Your task to perform on an android device: delete location history Image 0: 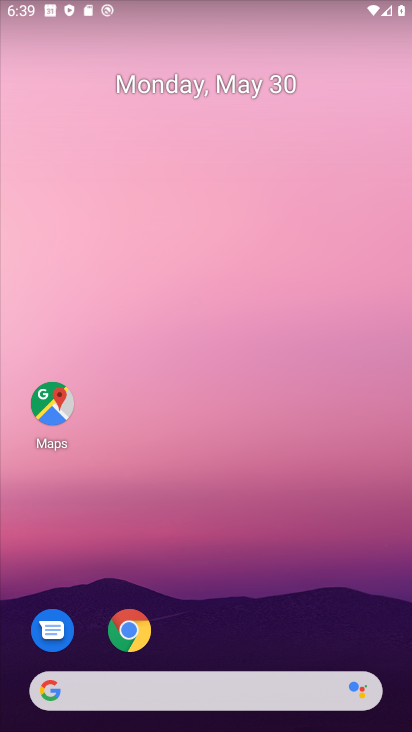
Step 0: drag from (346, 623) to (282, 10)
Your task to perform on an android device: delete location history Image 1: 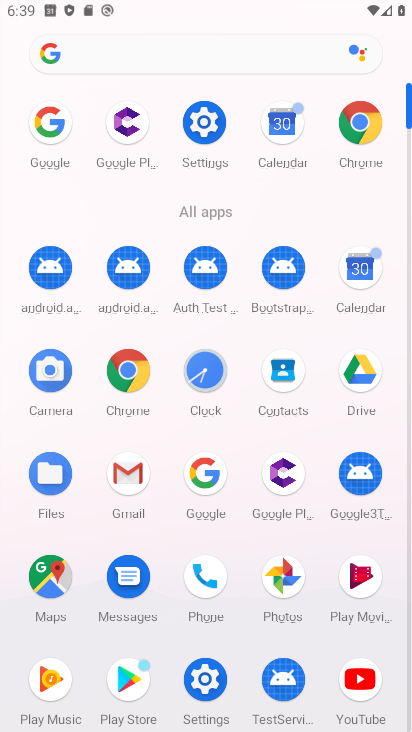
Step 1: click (209, 137)
Your task to perform on an android device: delete location history Image 2: 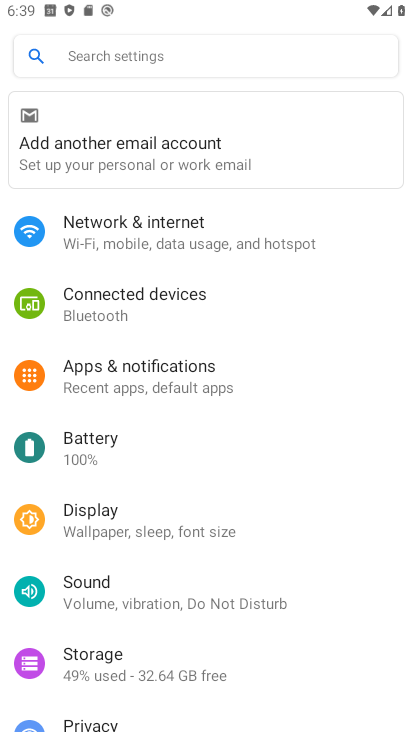
Step 2: drag from (136, 677) to (170, 235)
Your task to perform on an android device: delete location history Image 3: 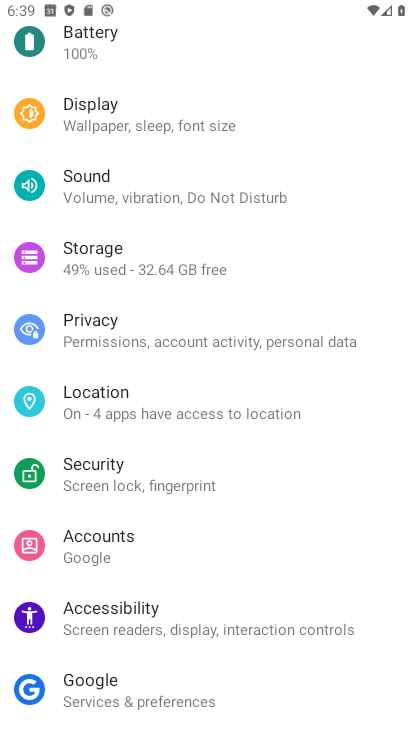
Step 3: click (130, 417)
Your task to perform on an android device: delete location history Image 4: 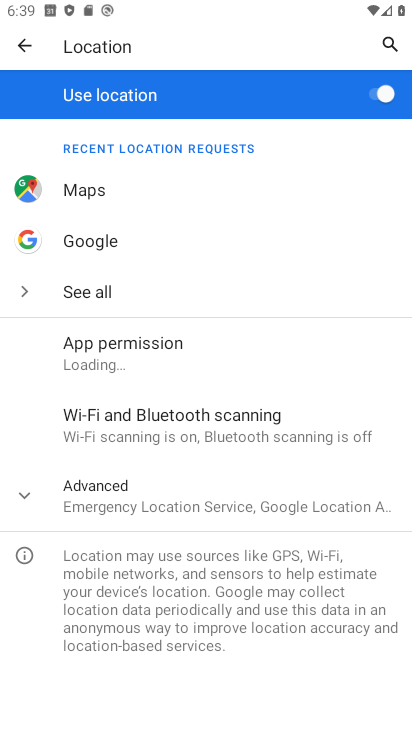
Step 4: click (134, 507)
Your task to perform on an android device: delete location history Image 5: 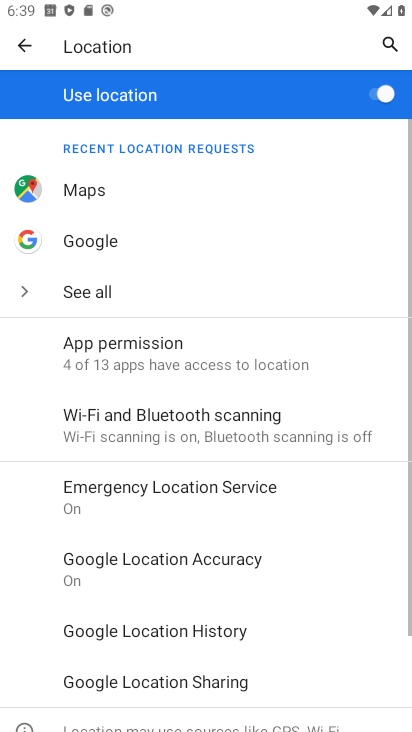
Step 5: click (183, 626)
Your task to perform on an android device: delete location history Image 6: 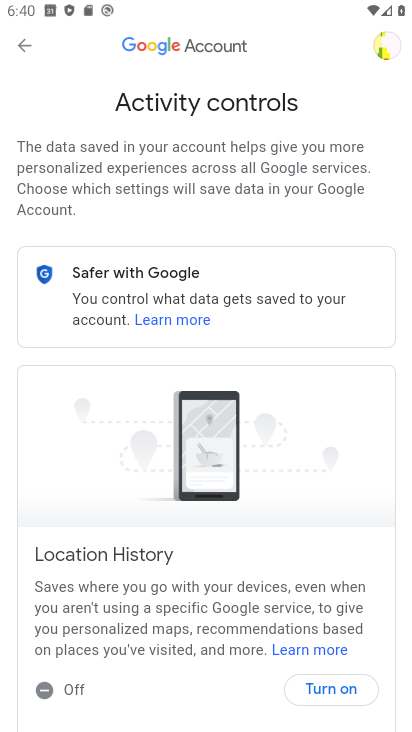
Step 6: drag from (260, 648) to (243, 140)
Your task to perform on an android device: delete location history Image 7: 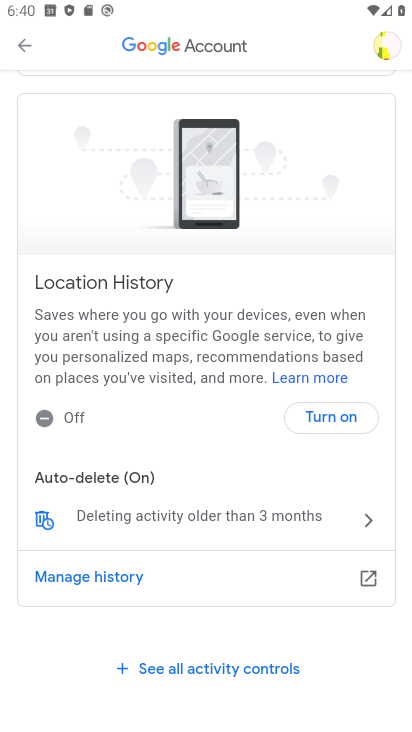
Step 7: click (203, 508)
Your task to perform on an android device: delete location history Image 8: 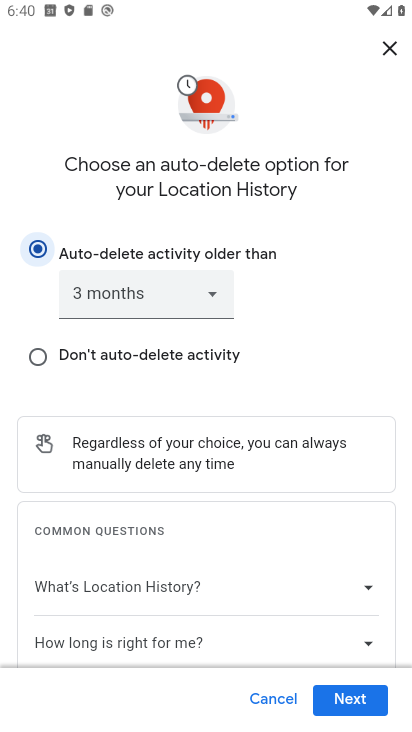
Step 8: click (344, 710)
Your task to perform on an android device: delete location history Image 9: 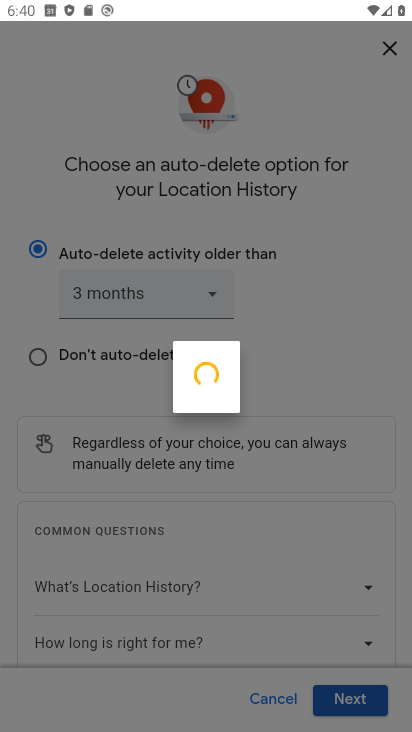
Step 9: click (350, 699)
Your task to perform on an android device: delete location history Image 10: 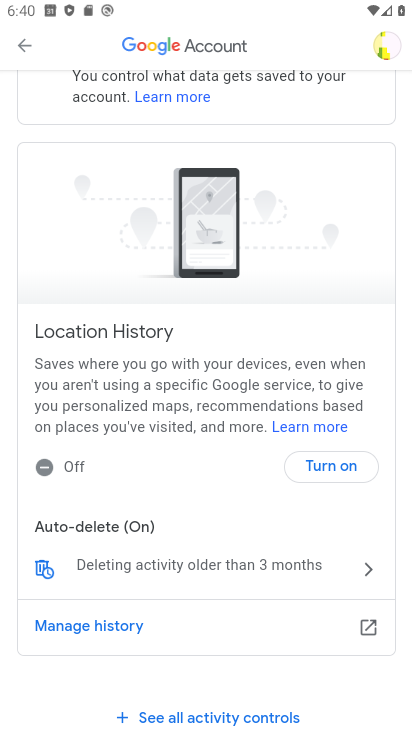
Step 10: task complete